Your task to perform on an android device: add a contact in the contacts app Image 0: 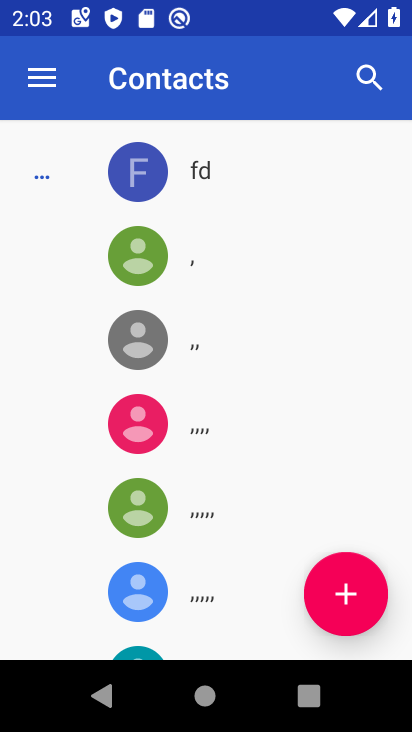
Step 0: press home button
Your task to perform on an android device: add a contact in the contacts app Image 1: 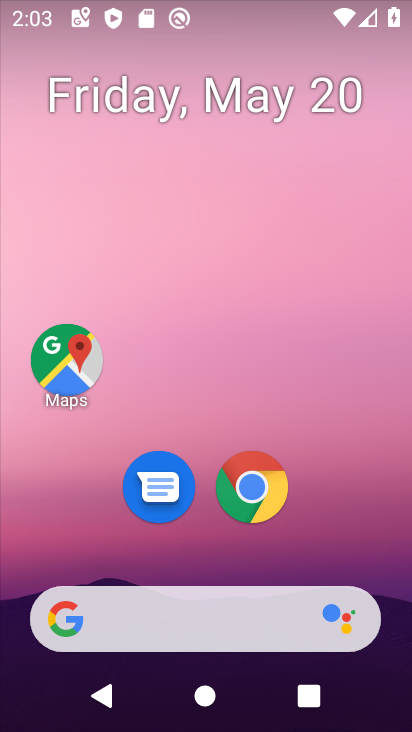
Step 1: drag from (342, 490) to (306, 103)
Your task to perform on an android device: add a contact in the contacts app Image 2: 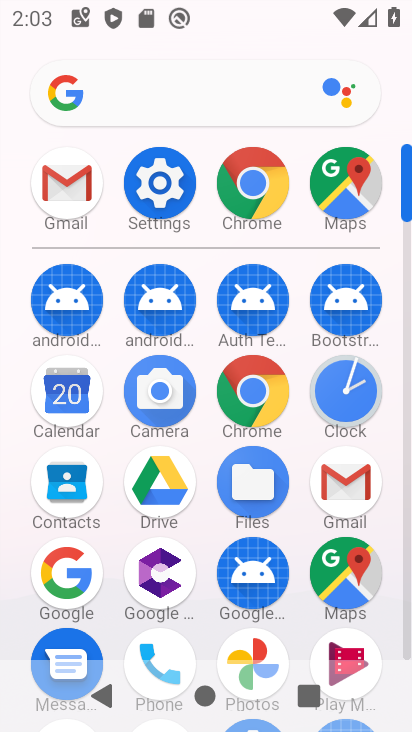
Step 2: click (72, 487)
Your task to perform on an android device: add a contact in the contacts app Image 3: 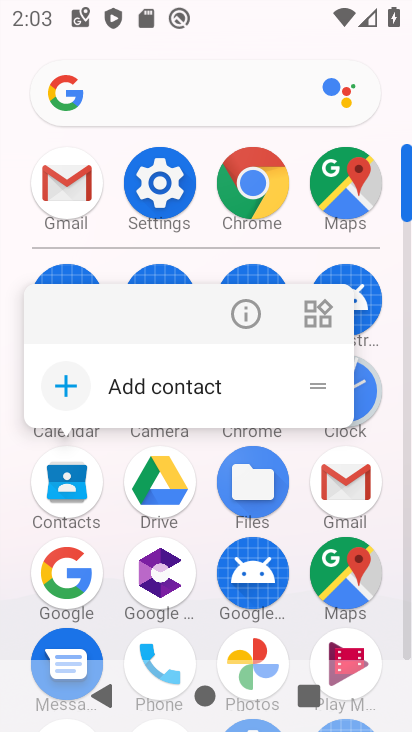
Step 3: drag from (401, 568) to (399, 244)
Your task to perform on an android device: add a contact in the contacts app Image 4: 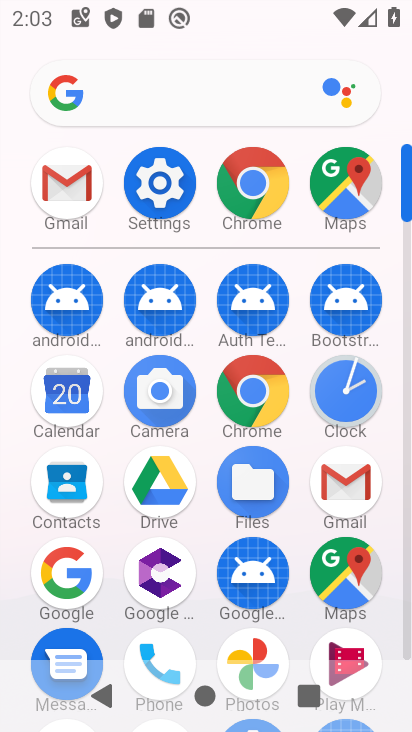
Step 4: drag from (404, 617) to (388, 322)
Your task to perform on an android device: add a contact in the contacts app Image 5: 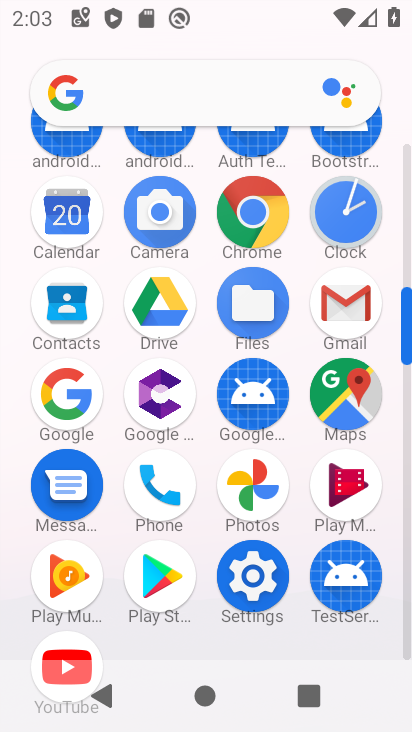
Step 5: click (162, 503)
Your task to perform on an android device: add a contact in the contacts app Image 6: 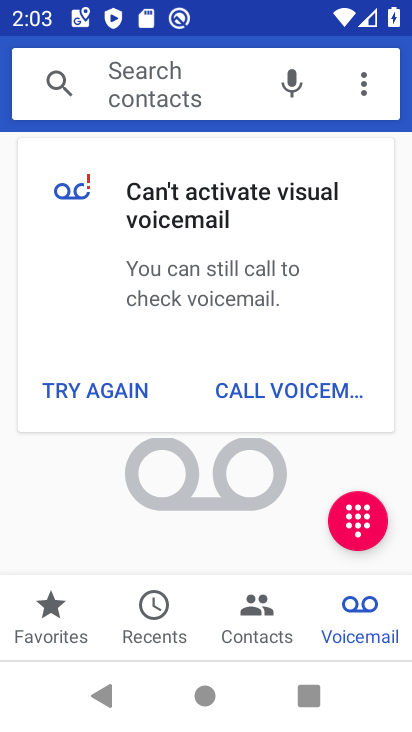
Step 6: click (250, 608)
Your task to perform on an android device: add a contact in the contacts app Image 7: 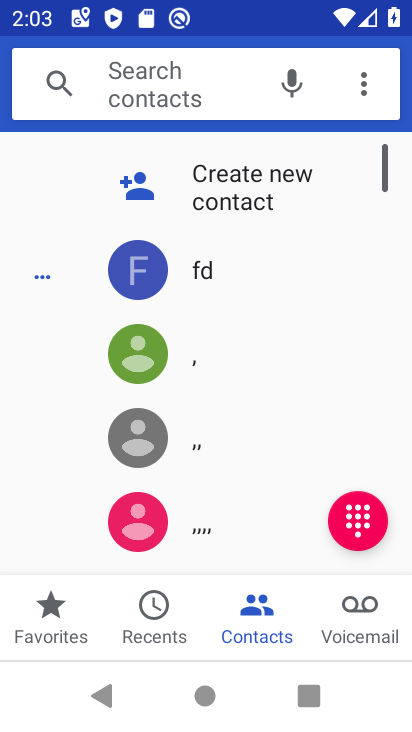
Step 7: click (194, 183)
Your task to perform on an android device: add a contact in the contacts app Image 8: 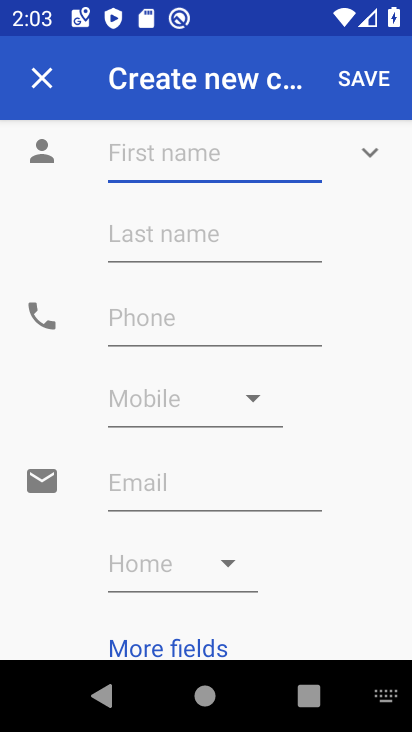
Step 8: type "ghhh"
Your task to perform on an android device: add a contact in the contacts app Image 9: 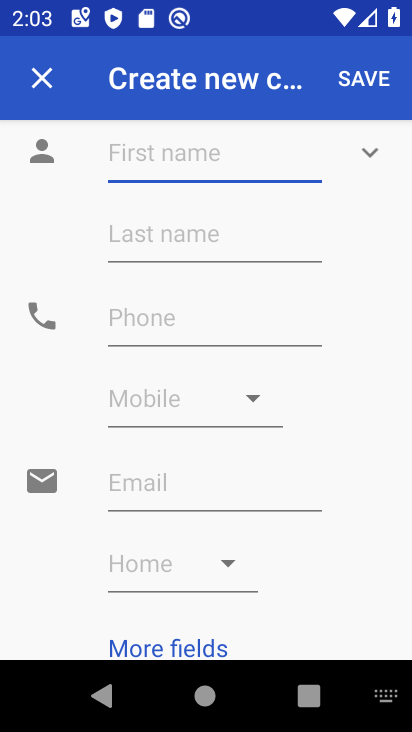
Step 9: click (261, 325)
Your task to perform on an android device: add a contact in the contacts app Image 10: 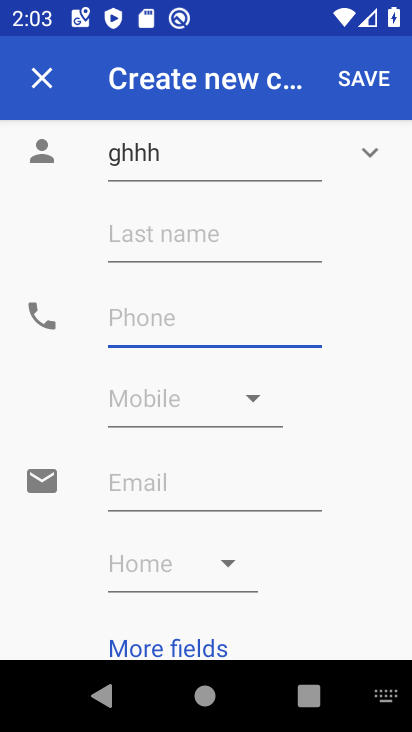
Step 10: type "6556765678"
Your task to perform on an android device: add a contact in the contacts app Image 11: 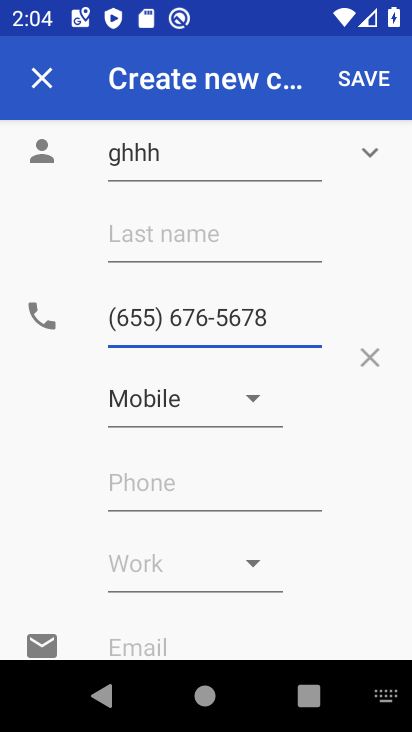
Step 11: click (384, 84)
Your task to perform on an android device: add a contact in the contacts app Image 12: 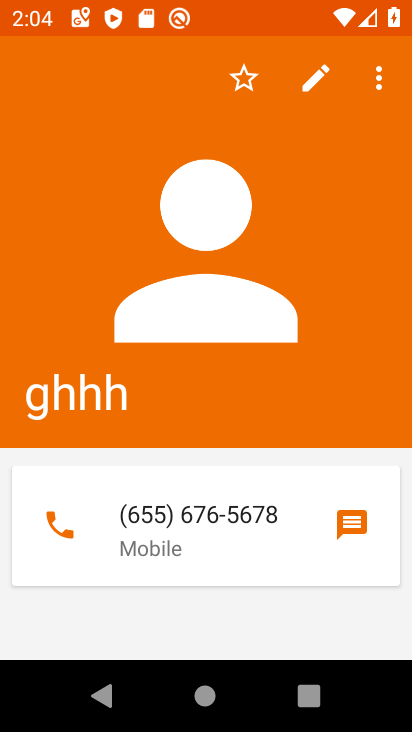
Step 12: task complete